Your task to perform on an android device: clear all cookies in the chrome app Image 0: 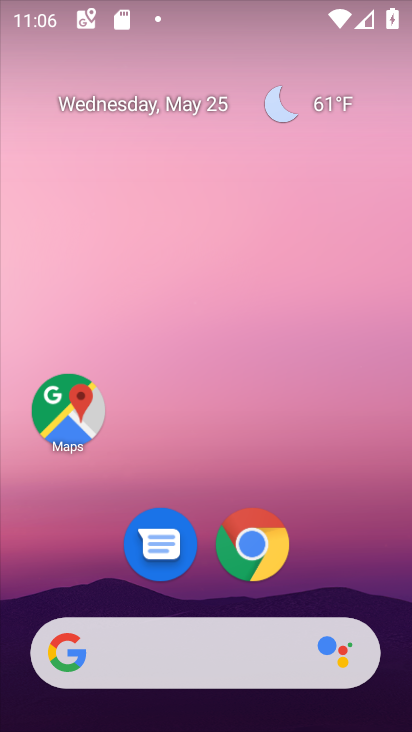
Step 0: click (266, 530)
Your task to perform on an android device: clear all cookies in the chrome app Image 1: 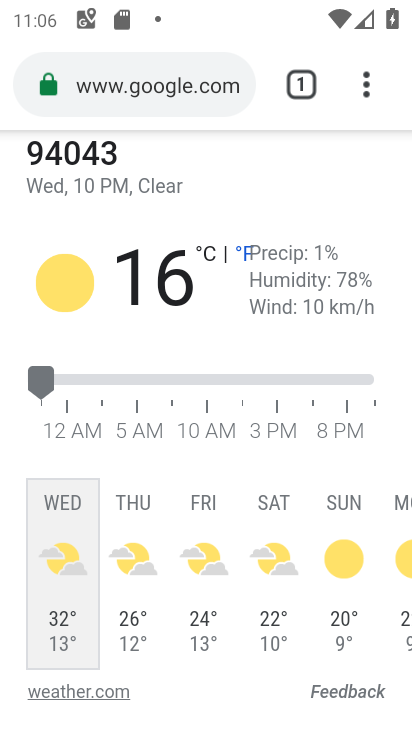
Step 1: click (368, 89)
Your task to perform on an android device: clear all cookies in the chrome app Image 2: 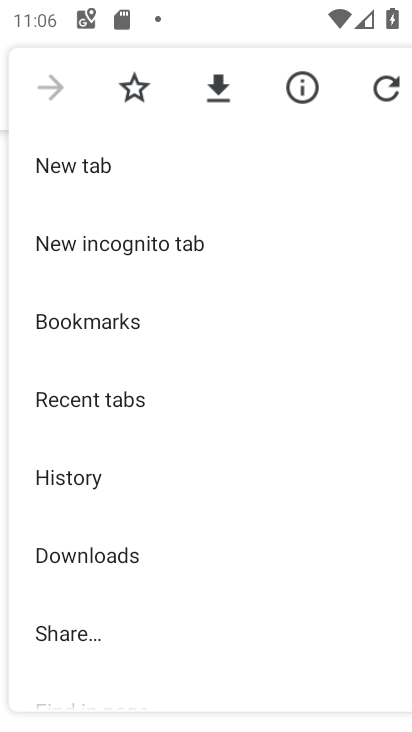
Step 2: click (60, 479)
Your task to perform on an android device: clear all cookies in the chrome app Image 3: 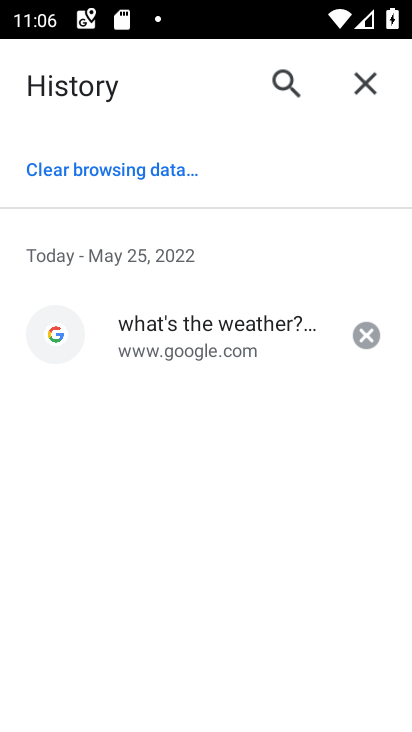
Step 3: click (64, 169)
Your task to perform on an android device: clear all cookies in the chrome app Image 4: 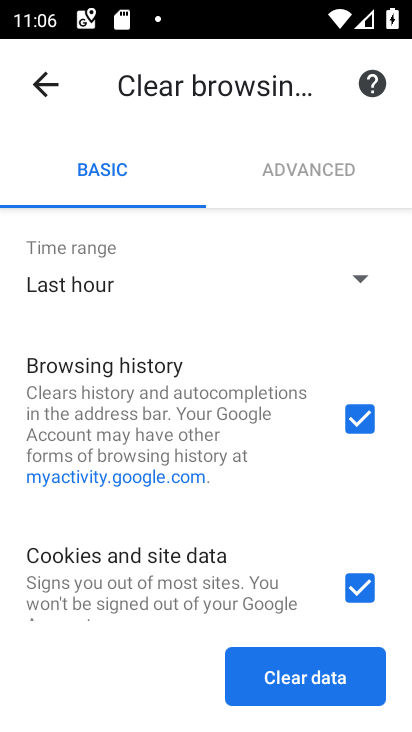
Step 4: click (261, 676)
Your task to perform on an android device: clear all cookies in the chrome app Image 5: 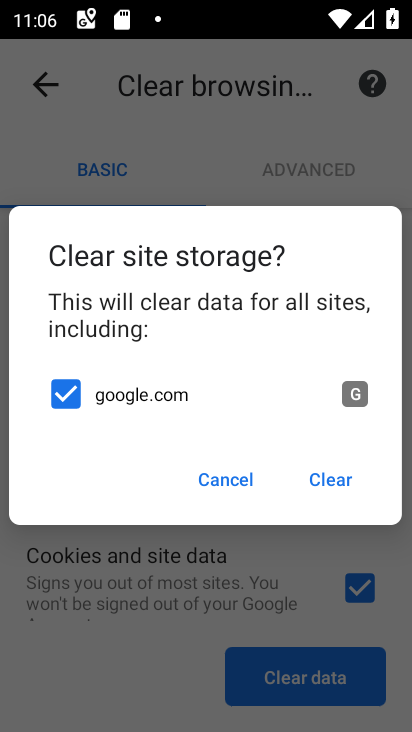
Step 5: click (331, 480)
Your task to perform on an android device: clear all cookies in the chrome app Image 6: 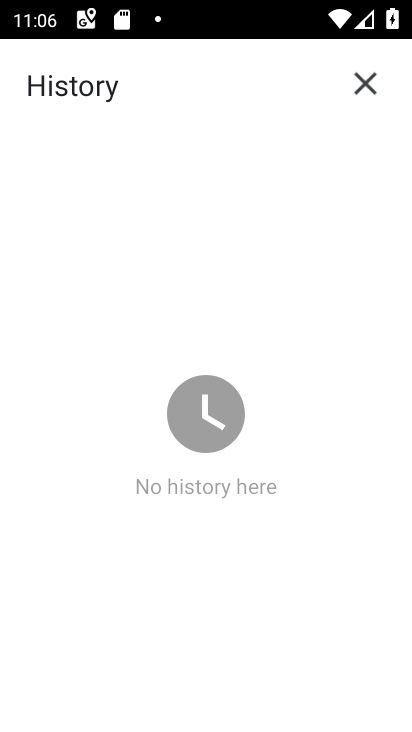
Step 6: task complete